Your task to perform on an android device: turn off picture-in-picture Image 0: 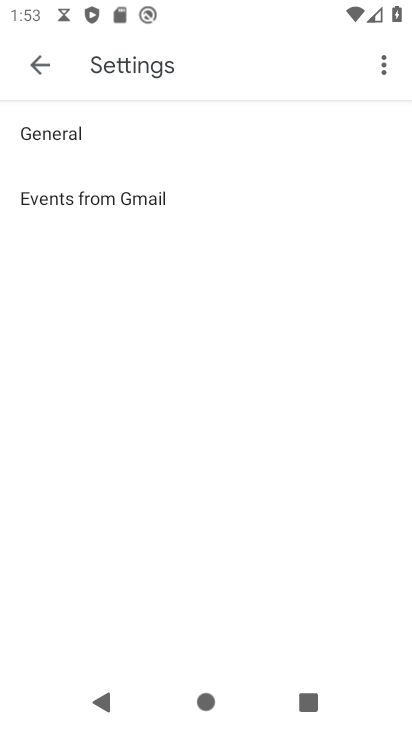
Step 0: press home button
Your task to perform on an android device: turn off picture-in-picture Image 1: 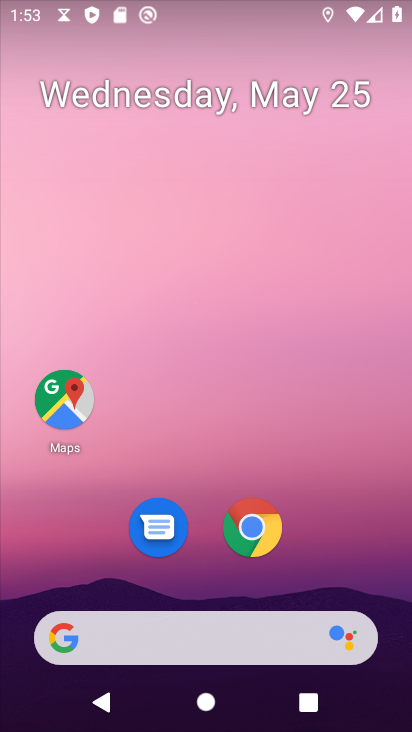
Step 1: drag from (121, 616) to (203, 15)
Your task to perform on an android device: turn off picture-in-picture Image 2: 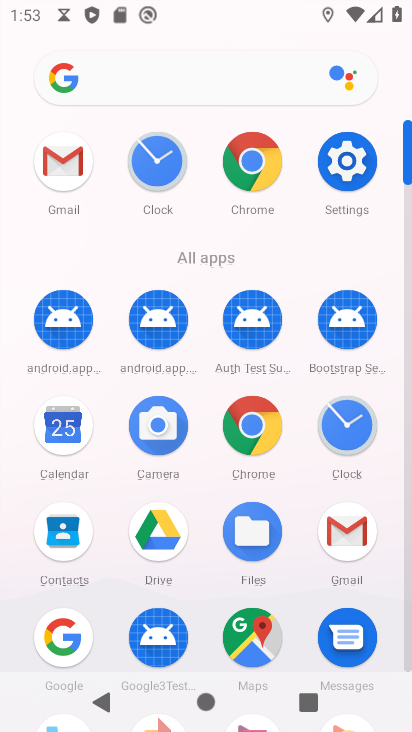
Step 2: drag from (179, 660) to (222, 416)
Your task to perform on an android device: turn off picture-in-picture Image 3: 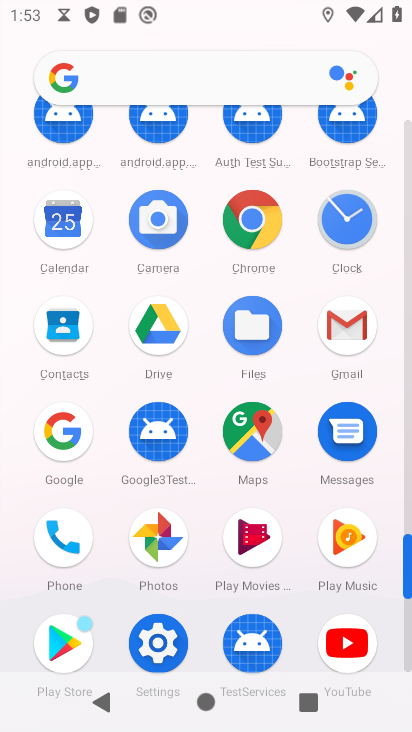
Step 3: click (163, 659)
Your task to perform on an android device: turn off picture-in-picture Image 4: 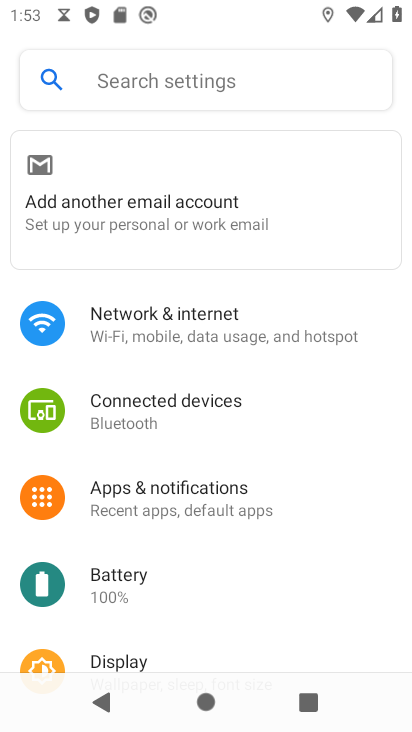
Step 4: drag from (174, 621) to (201, 418)
Your task to perform on an android device: turn off picture-in-picture Image 5: 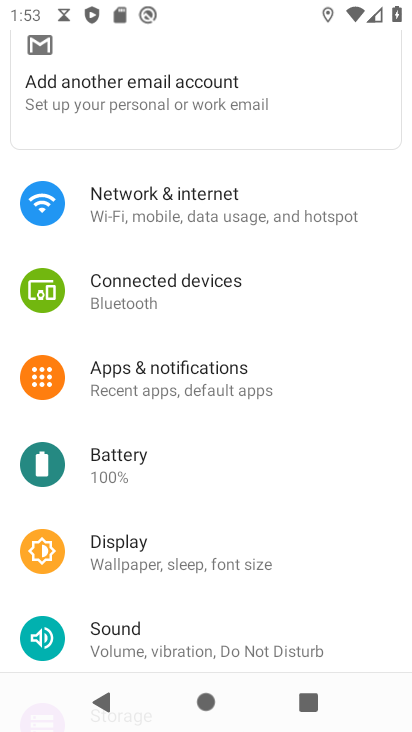
Step 5: click (200, 369)
Your task to perform on an android device: turn off picture-in-picture Image 6: 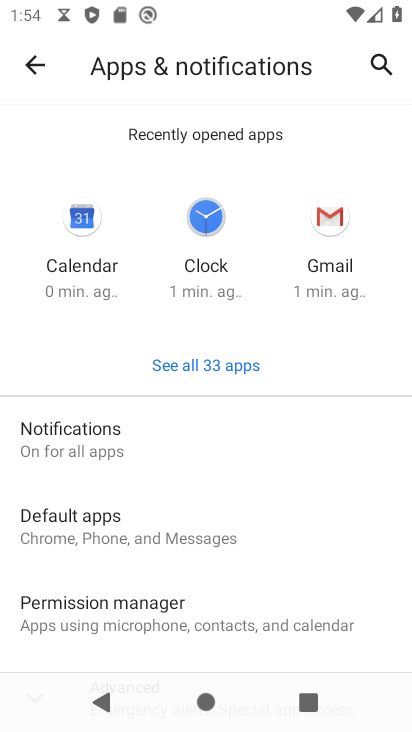
Step 6: drag from (216, 616) to (238, 377)
Your task to perform on an android device: turn off picture-in-picture Image 7: 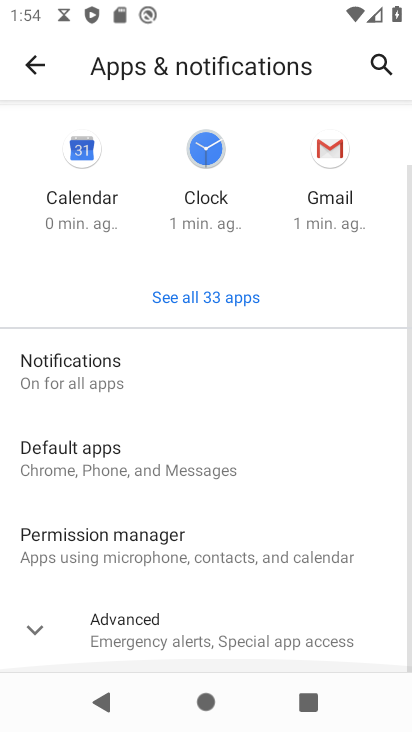
Step 7: click (204, 636)
Your task to perform on an android device: turn off picture-in-picture Image 8: 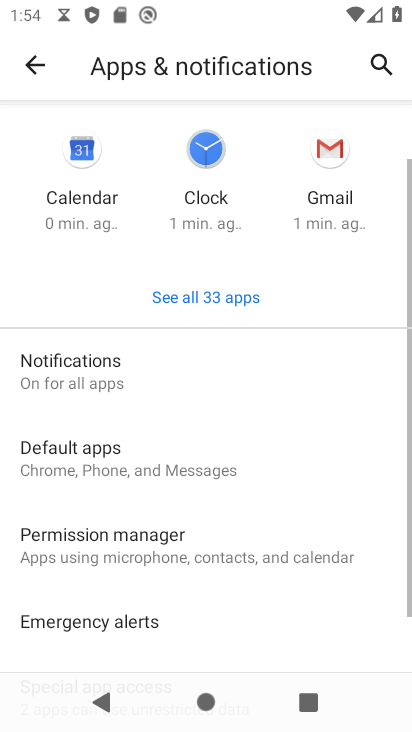
Step 8: drag from (203, 634) to (246, 313)
Your task to perform on an android device: turn off picture-in-picture Image 9: 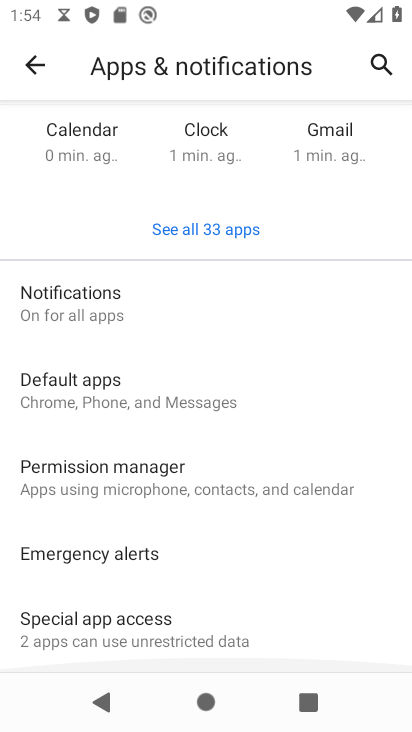
Step 9: click (147, 625)
Your task to perform on an android device: turn off picture-in-picture Image 10: 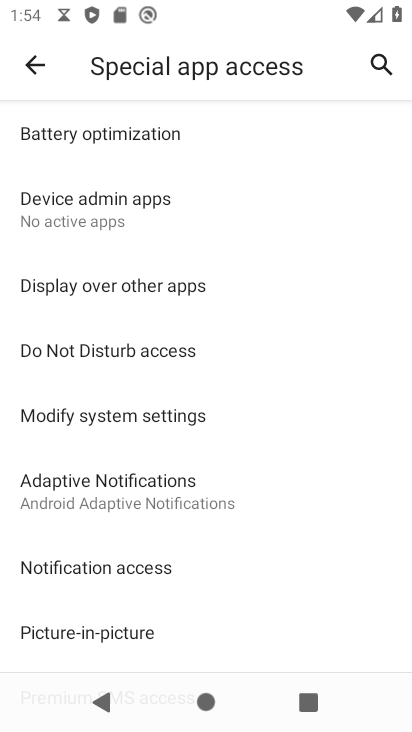
Step 10: drag from (164, 602) to (216, 308)
Your task to perform on an android device: turn off picture-in-picture Image 11: 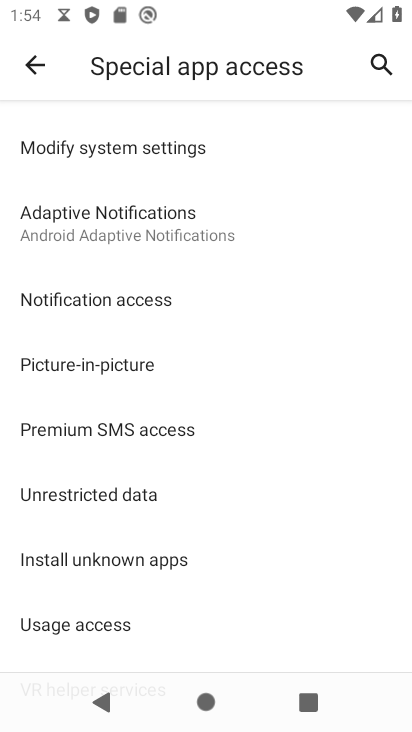
Step 11: click (165, 387)
Your task to perform on an android device: turn off picture-in-picture Image 12: 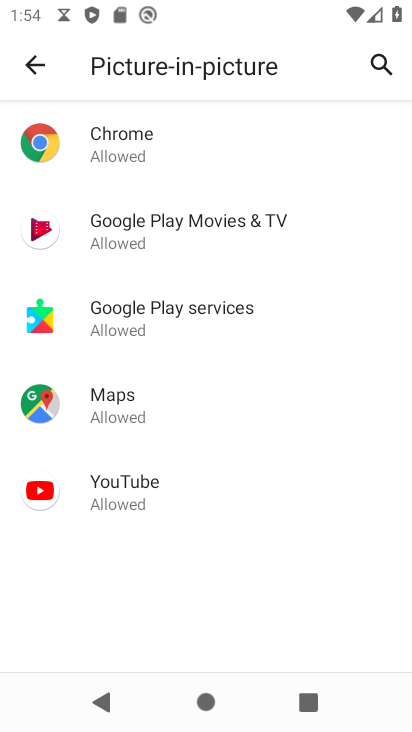
Step 12: click (208, 164)
Your task to perform on an android device: turn off picture-in-picture Image 13: 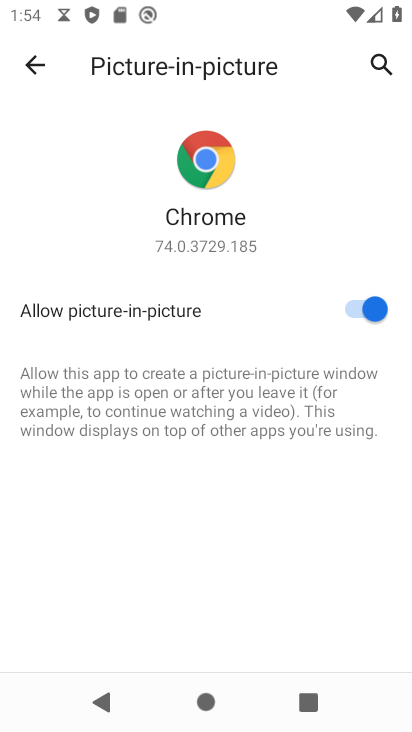
Step 13: click (348, 312)
Your task to perform on an android device: turn off picture-in-picture Image 14: 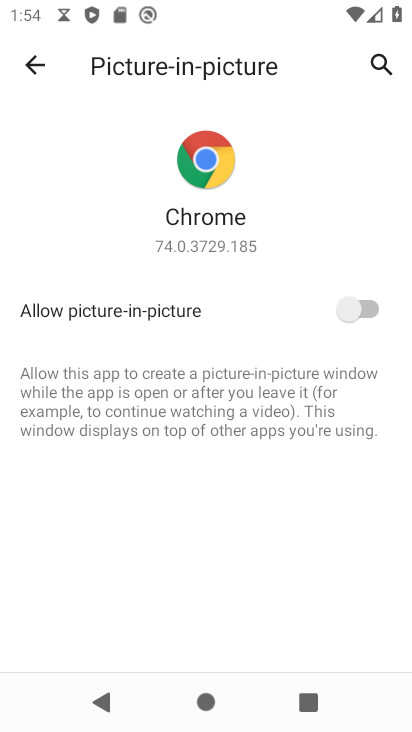
Step 14: click (34, 58)
Your task to perform on an android device: turn off picture-in-picture Image 15: 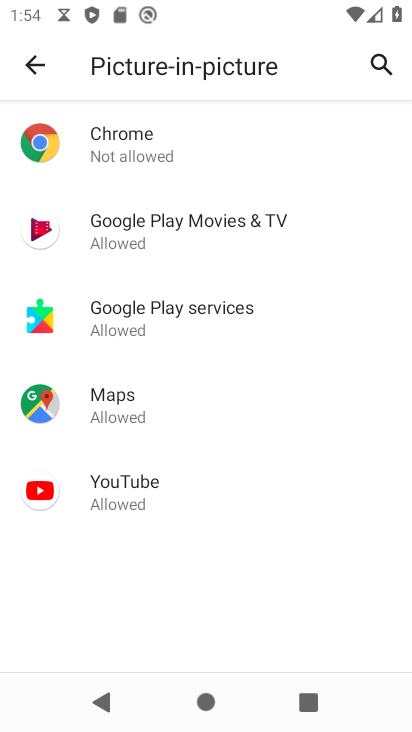
Step 15: click (221, 232)
Your task to perform on an android device: turn off picture-in-picture Image 16: 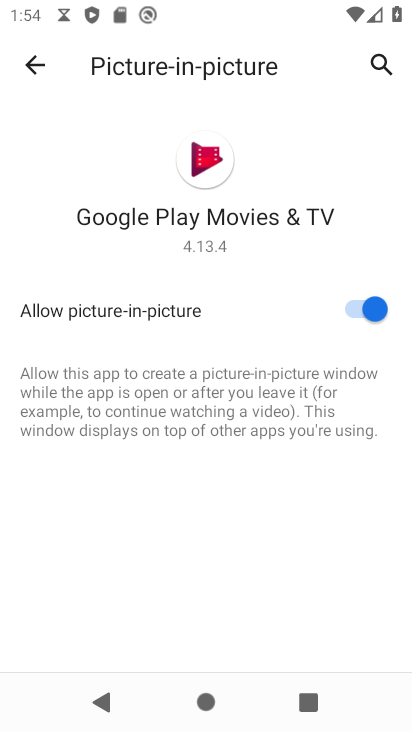
Step 16: click (329, 313)
Your task to perform on an android device: turn off picture-in-picture Image 17: 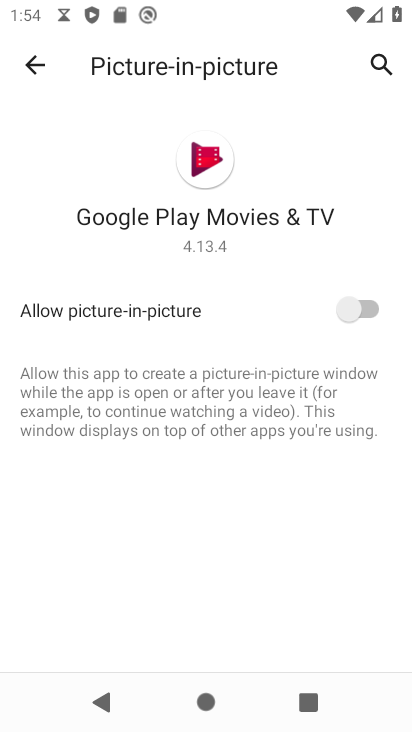
Step 17: press back button
Your task to perform on an android device: turn off picture-in-picture Image 18: 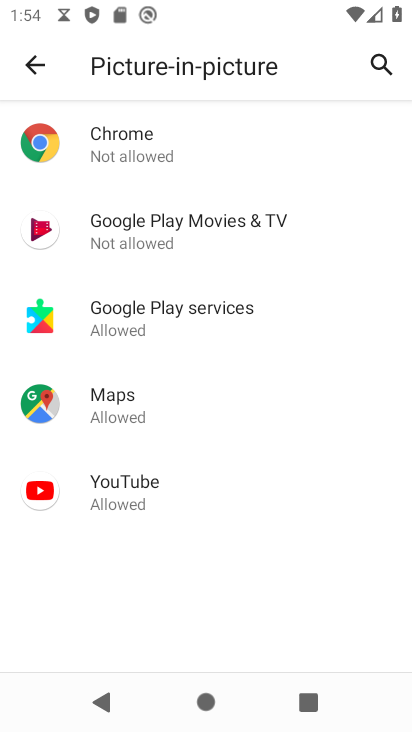
Step 18: click (218, 329)
Your task to perform on an android device: turn off picture-in-picture Image 19: 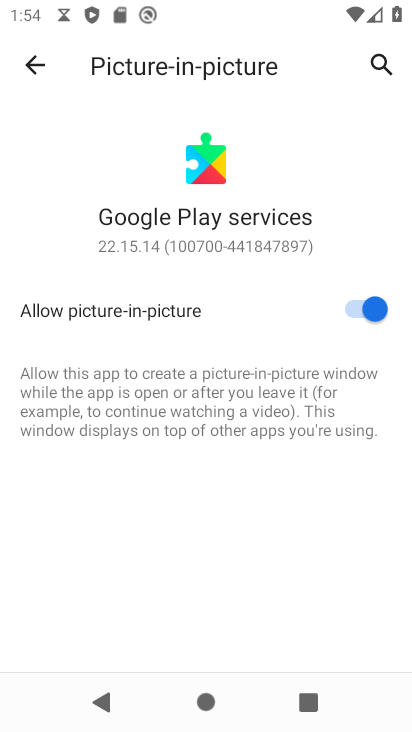
Step 19: click (340, 307)
Your task to perform on an android device: turn off picture-in-picture Image 20: 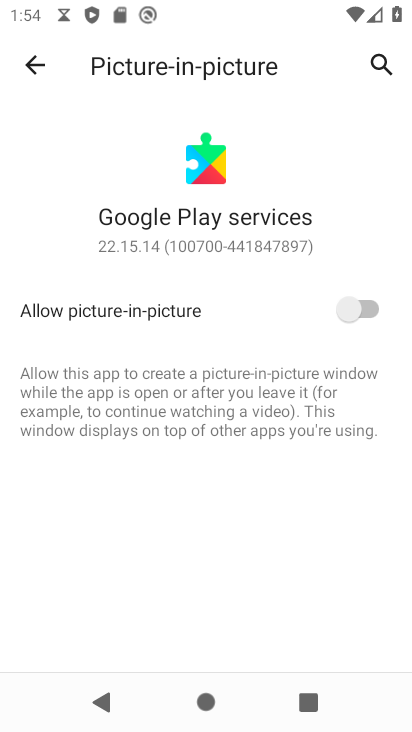
Step 20: press back button
Your task to perform on an android device: turn off picture-in-picture Image 21: 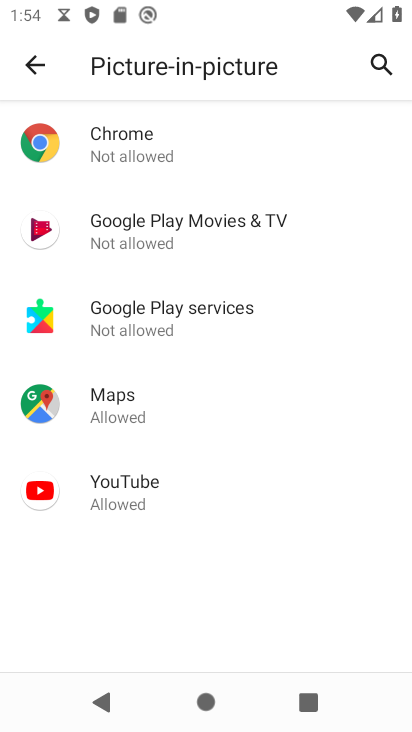
Step 21: click (156, 421)
Your task to perform on an android device: turn off picture-in-picture Image 22: 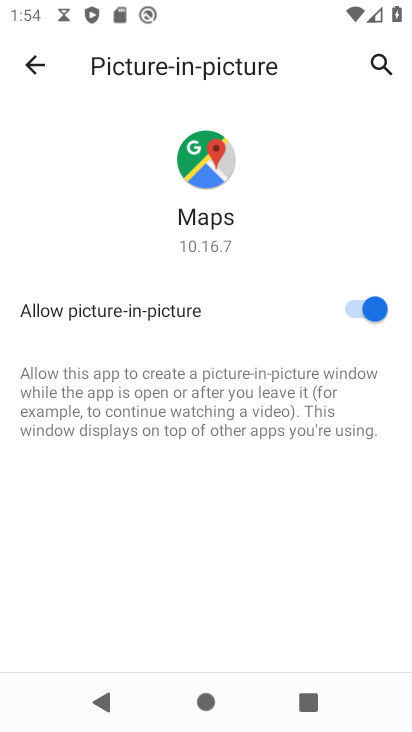
Step 22: click (343, 309)
Your task to perform on an android device: turn off picture-in-picture Image 23: 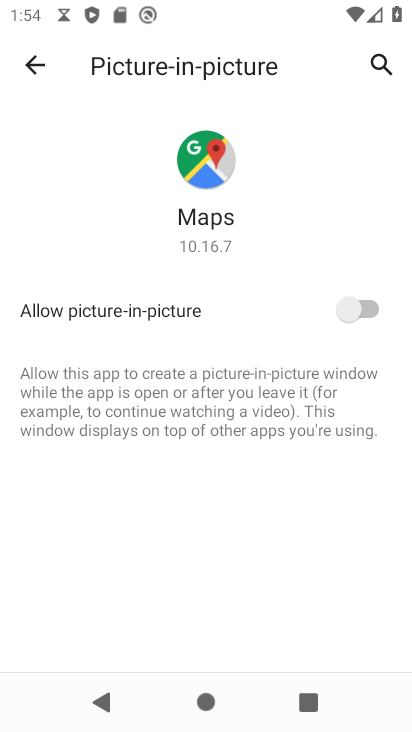
Step 23: press back button
Your task to perform on an android device: turn off picture-in-picture Image 24: 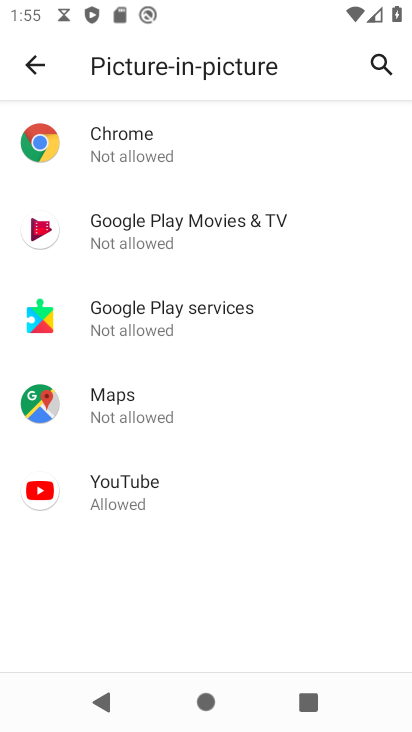
Step 24: click (173, 475)
Your task to perform on an android device: turn off picture-in-picture Image 25: 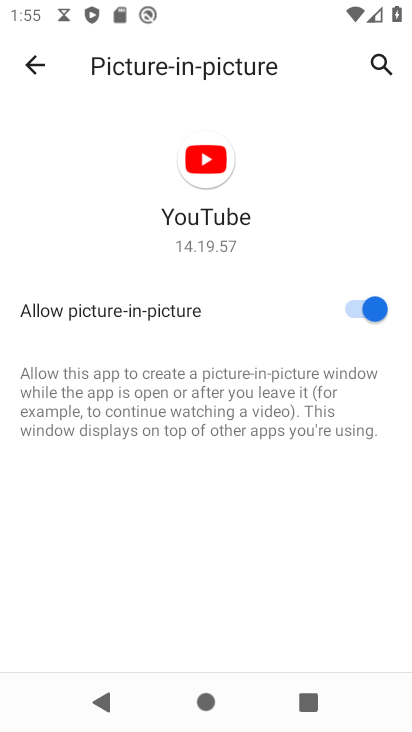
Step 25: click (354, 321)
Your task to perform on an android device: turn off picture-in-picture Image 26: 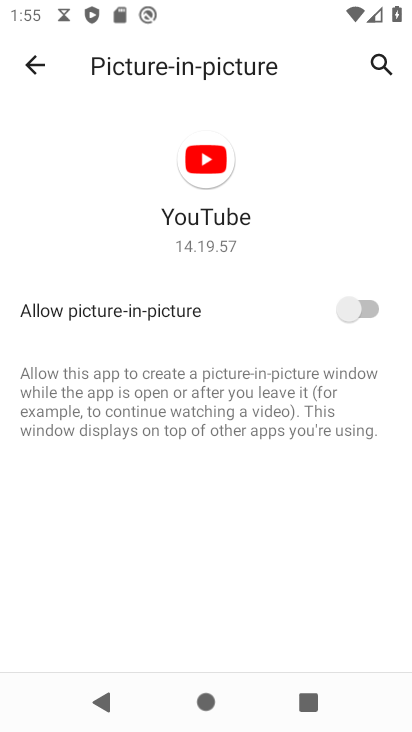
Step 26: task complete